Your task to perform on an android device: turn off location history Image 0: 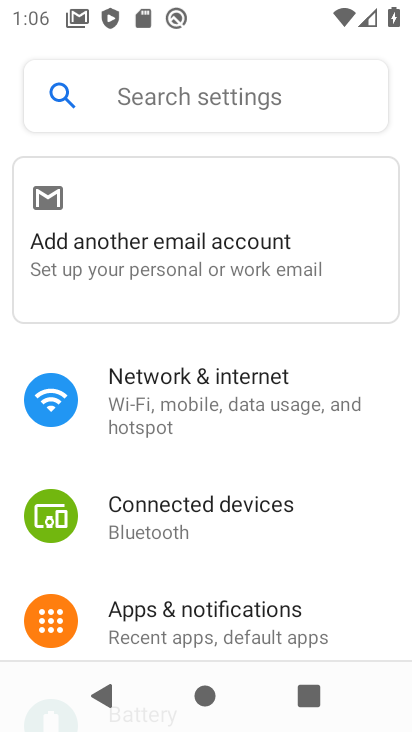
Step 0: press home button
Your task to perform on an android device: turn off location history Image 1: 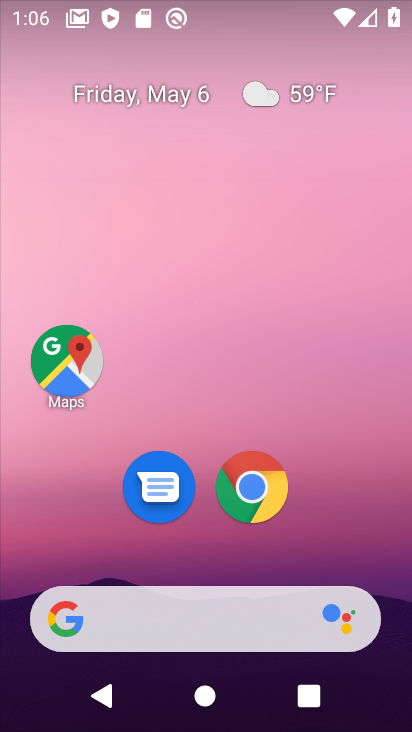
Step 1: drag from (155, 596) to (213, 154)
Your task to perform on an android device: turn off location history Image 2: 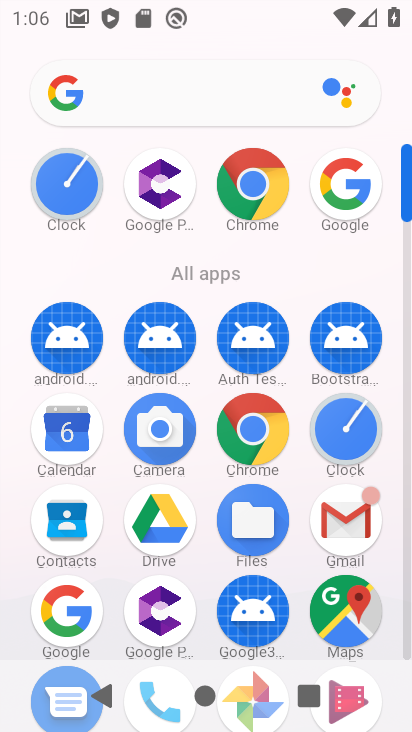
Step 2: drag from (180, 451) to (245, 128)
Your task to perform on an android device: turn off location history Image 3: 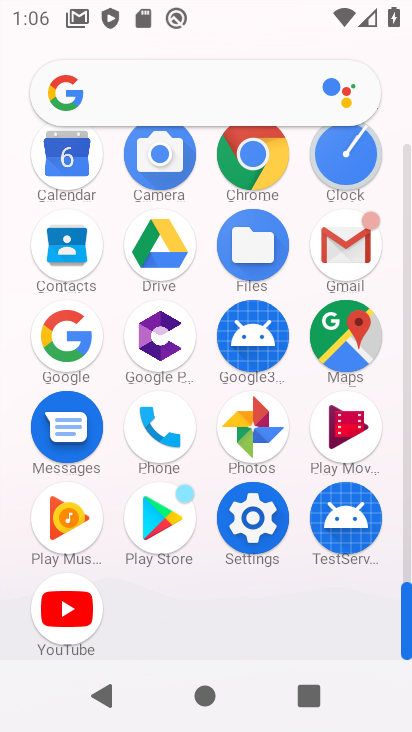
Step 3: click (250, 552)
Your task to perform on an android device: turn off location history Image 4: 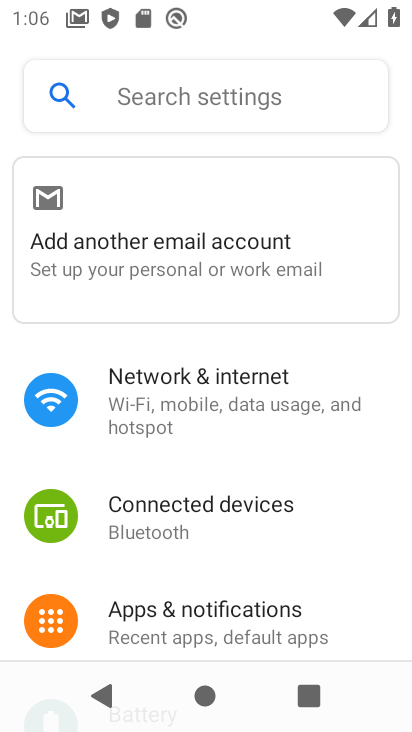
Step 4: drag from (267, 499) to (327, 202)
Your task to perform on an android device: turn off location history Image 5: 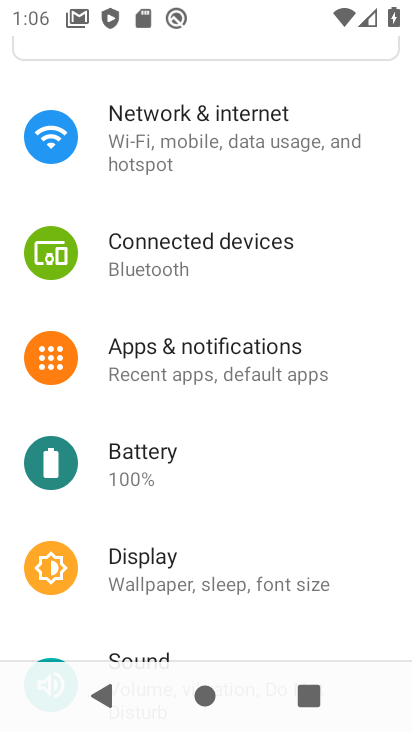
Step 5: drag from (212, 546) to (211, 286)
Your task to perform on an android device: turn off location history Image 6: 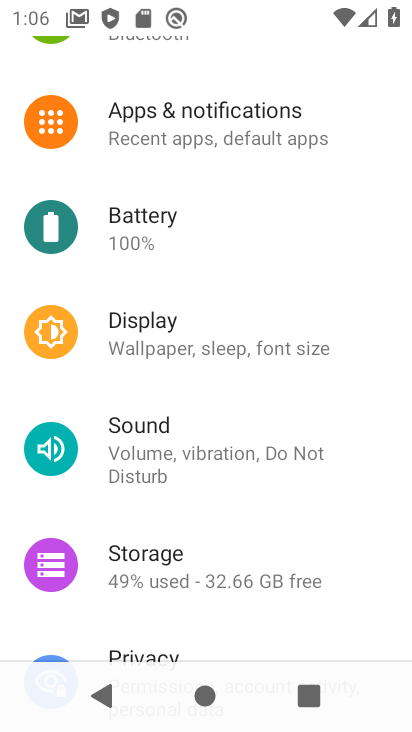
Step 6: drag from (182, 491) to (218, 345)
Your task to perform on an android device: turn off location history Image 7: 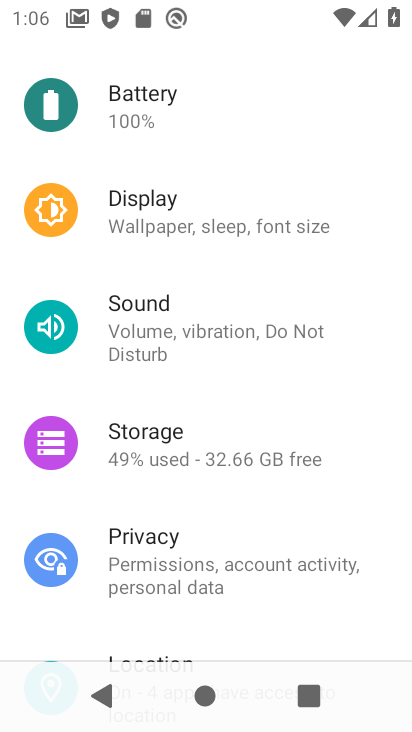
Step 7: drag from (194, 570) to (222, 350)
Your task to perform on an android device: turn off location history Image 8: 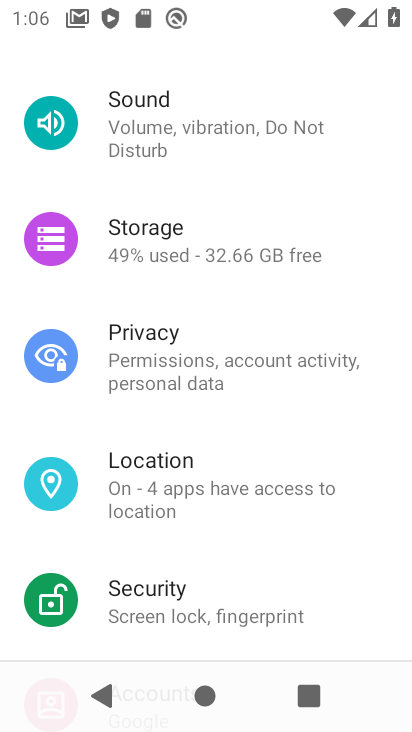
Step 8: click (164, 487)
Your task to perform on an android device: turn off location history Image 9: 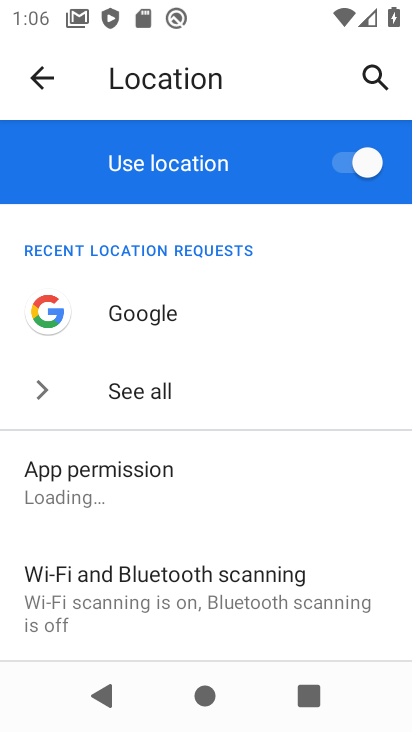
Step 9: drag from (139, 518) to (145, 288)
Your task to perform on an android device: turn off location history Image 10: 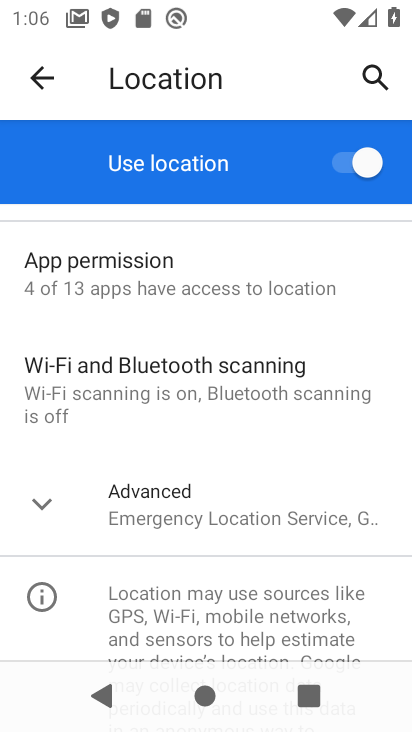
Step 10: click (113, 494)
Your task to perform on an android device: turn off location history Image 11: 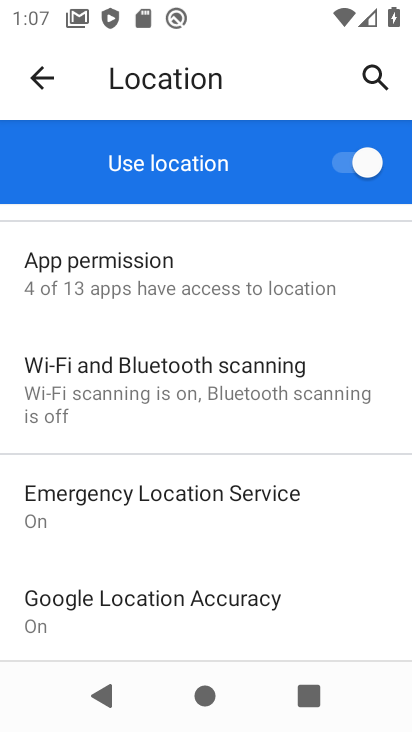
Step 11: drag from (162, 390) to (196, 323)
Your task to perform on an android device: turn off location history Image 12: 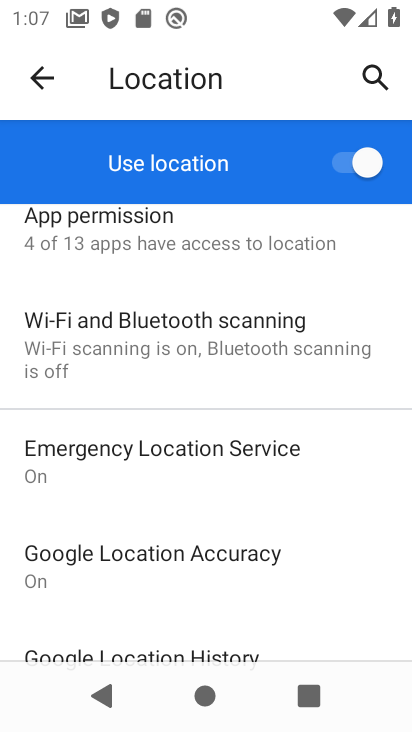
Step 12: drag from (231, 554) to (294, 346)
Your task to perform on an android device: turn off location history Image 13: 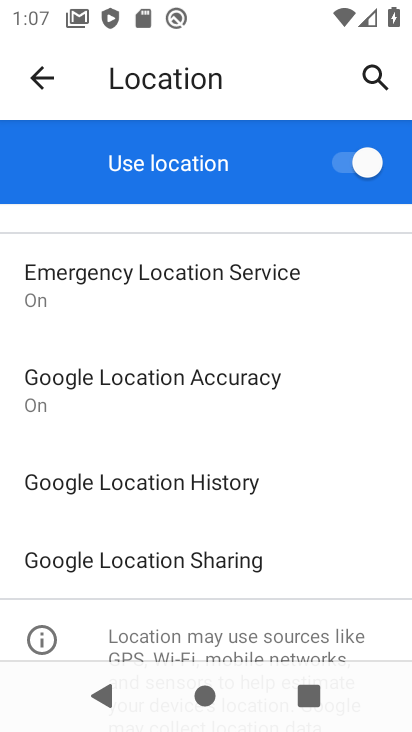
Step 13: click (251, 474)
Your task to perform on an android device: turn off location history Image 14: 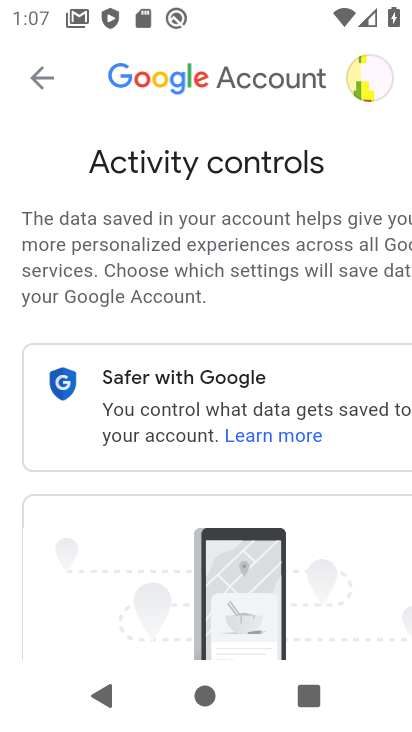
Step 14: task complete